Your task to perform on an android device: change timer sound Image 0: 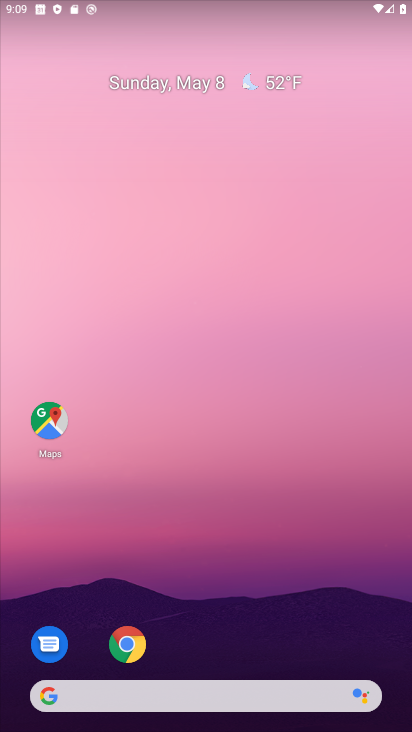
Step 0: drag from (198, 616) to (242, 237)
Your task to perform on an android device: change timer sound Image 1: 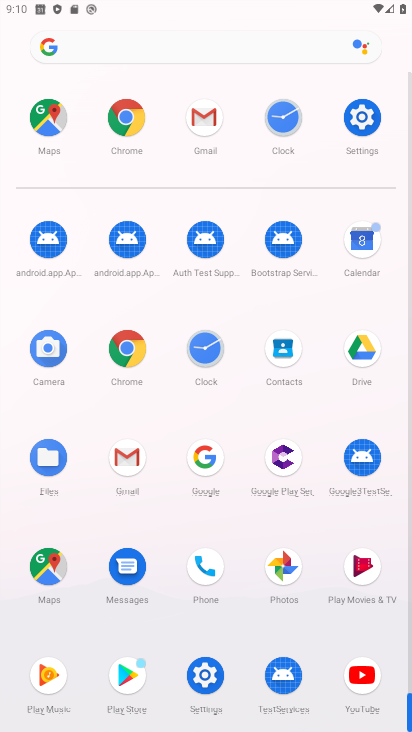
Step 1: click (207, 345)
Your task to perform on an android device: change timer sound Image 2: 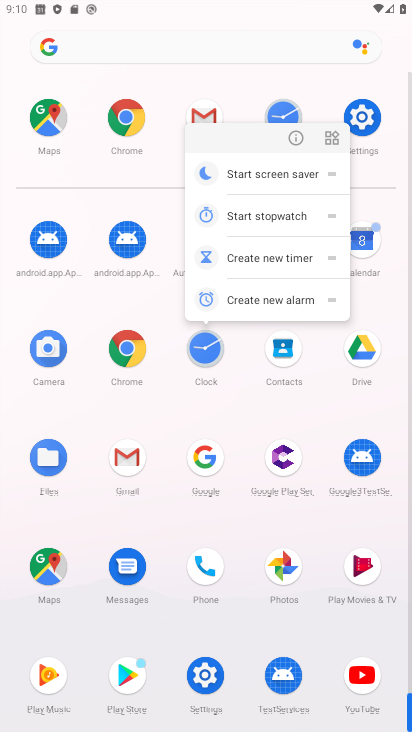
Step 2: click (297, 140)
Your task to perform on an android device: change timer sound Image 3: 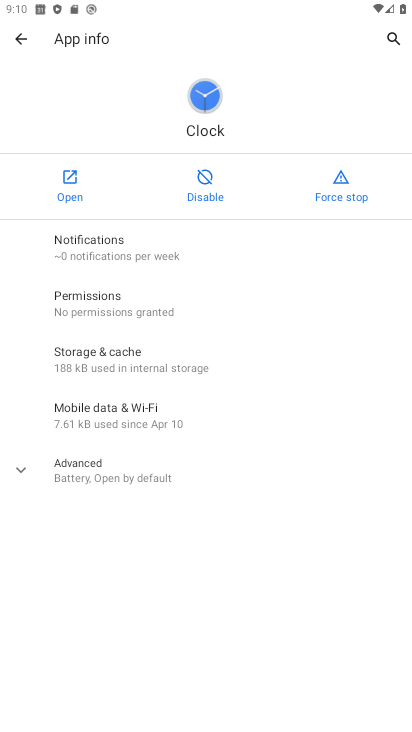
Step 3: click (79, 188)
Your task to perform on an android device: change timer sound Image 4: 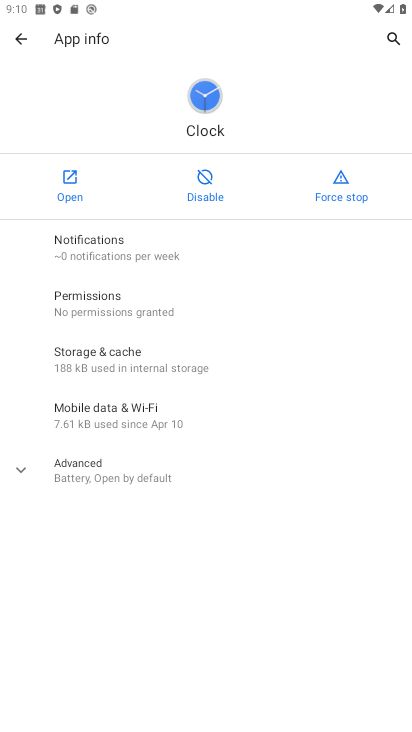
Step 4: click (78, 189)
Your task to perform on an android device: change timer sound Image 5: 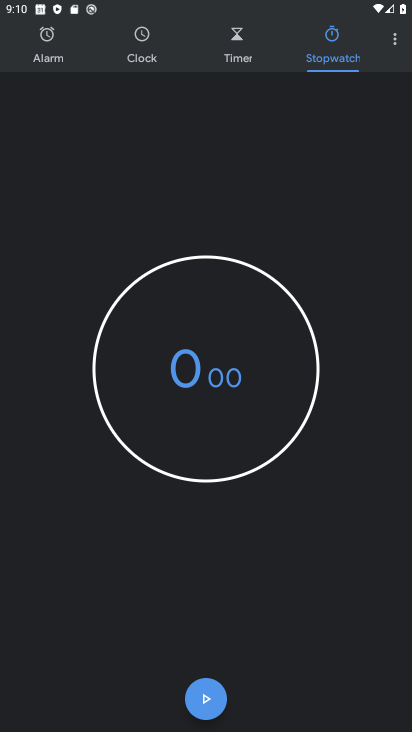
Step 5: click (390, 47)
Your task to perform on an android device: change timer sound Image 6: 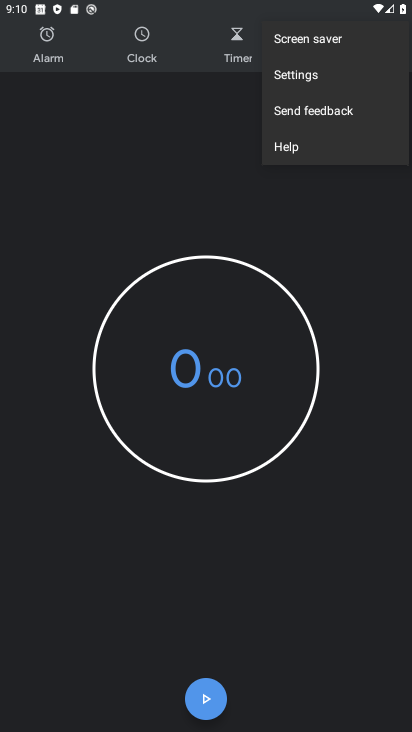
Step 6: click (317, 81)
Your task to perform on an android device: change timer sound Image 7: 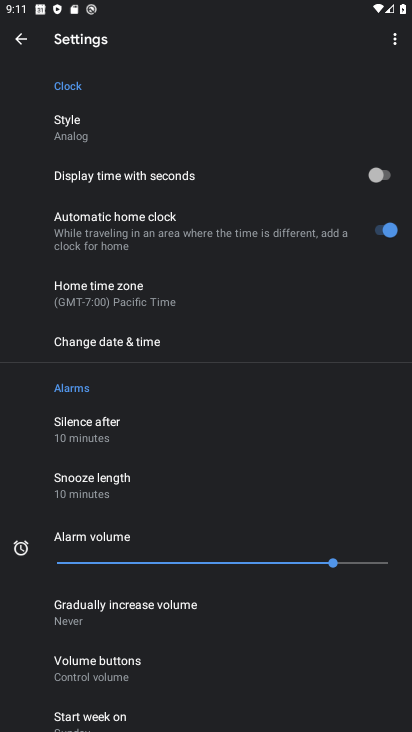
Step 7: drag from (213, 615) to (232, 219)
Your task to perform on an android device: change timer sound Image 8: 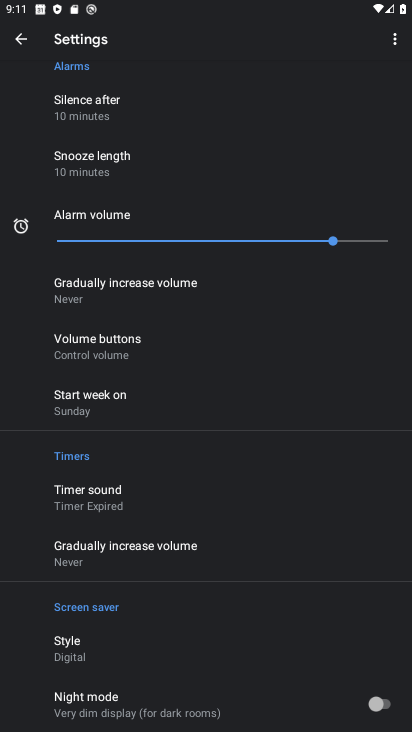
Step 8: drag from (180, 612) to (257, 379)
Your task to perform on an android device: change timer sound Image 9: 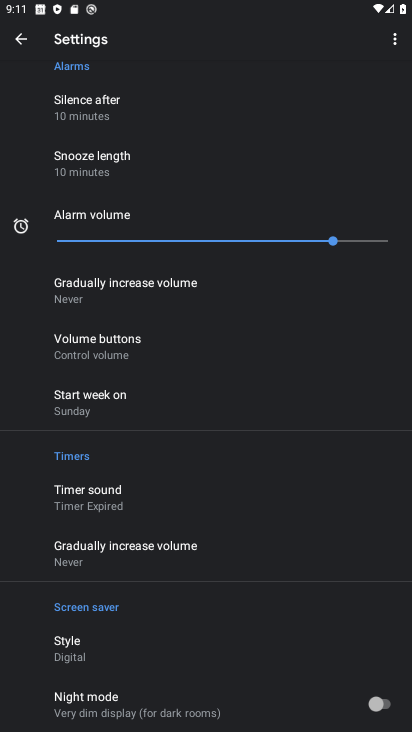
Step 9: click (156, 494)
Your task to perform on an android device: change timer sound Image 10: 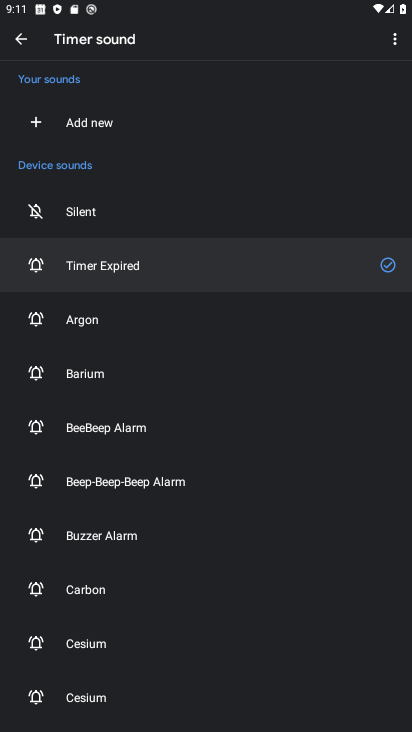
Step 10: click (194, 429)
Your task to perform on an android device: change timer sound Image 11: 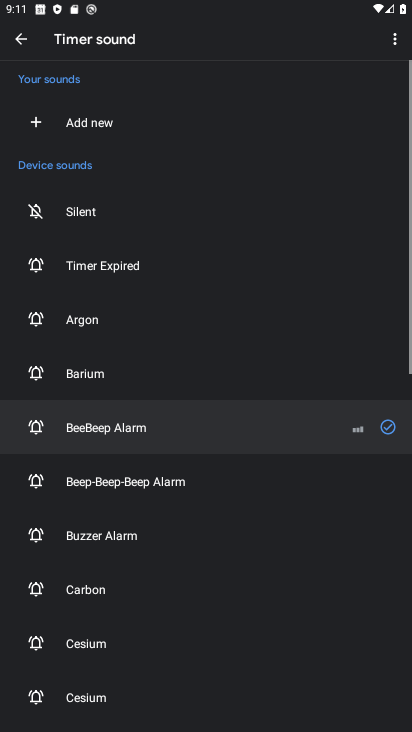
Step 11: task complete